Your task to perform on an android device: delete the emails in spam in the gmail app Image 0: 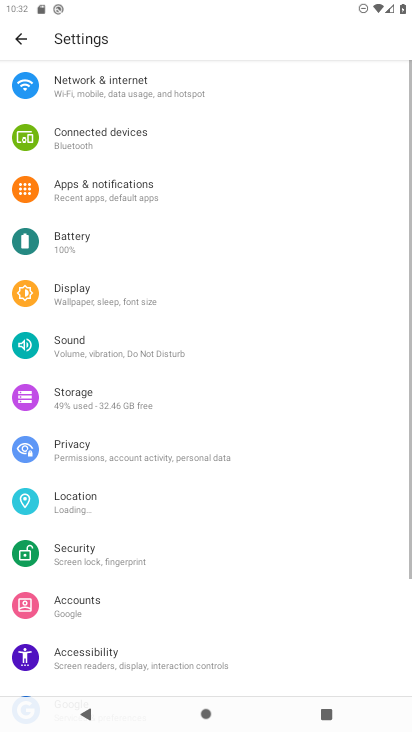
Step 0: press home button
Your task to perform on an android device: delete the emails in spam in the gmail app Image 1: 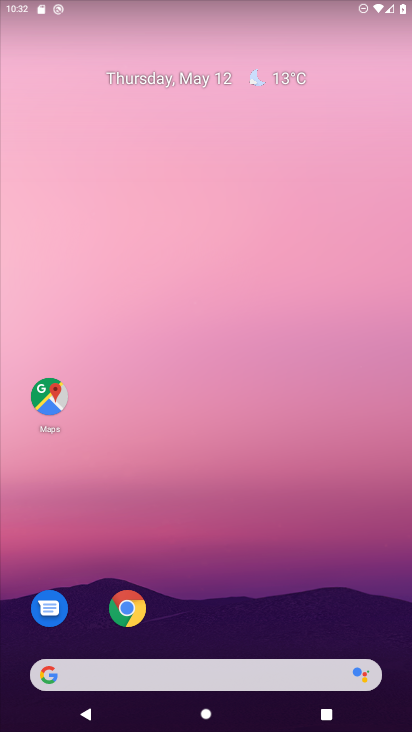
Step 1: drag from (241, 605) to (217, 37)
Your task to perform on an android device: delete the emails in spam in the gmail app Image 2: 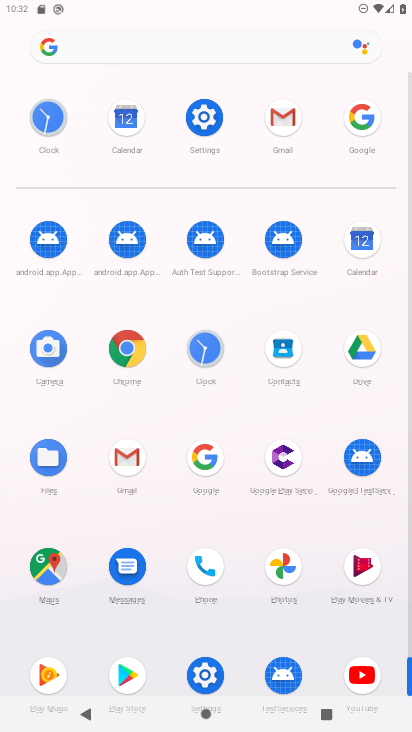
Step 2: click (126, 454)
Your task to perform on an android device: delete the emails in spam in the gmail app Image 3: 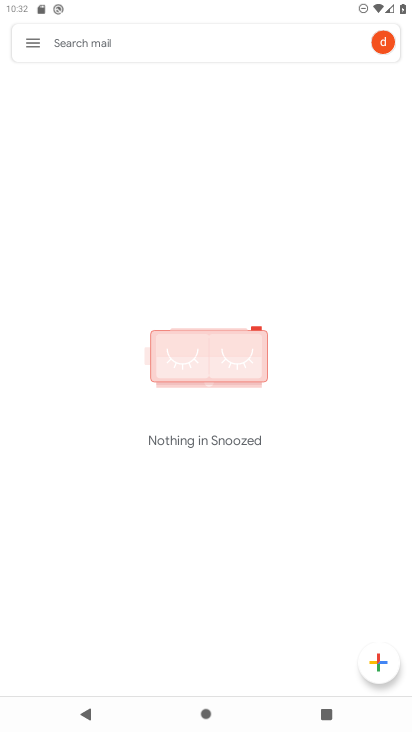
Step 3: click (27, 57)
Your task to perform on an android device: delete the emails in spam in the gmail app Image 4: 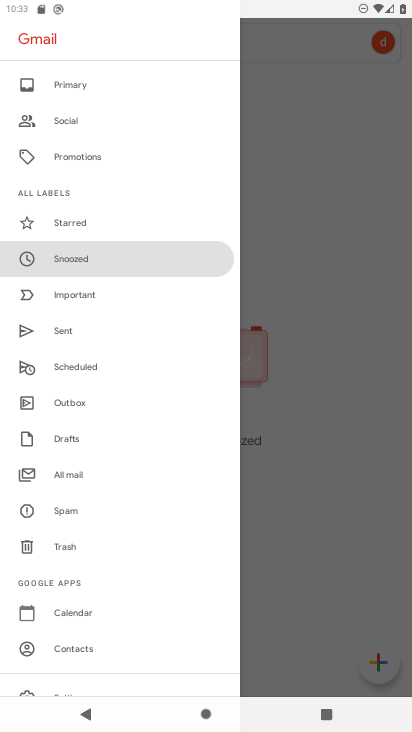
Step 4: click (77, 507)
Your task to perform on an android device: delete the emails in spam in the gmail app Image 5: 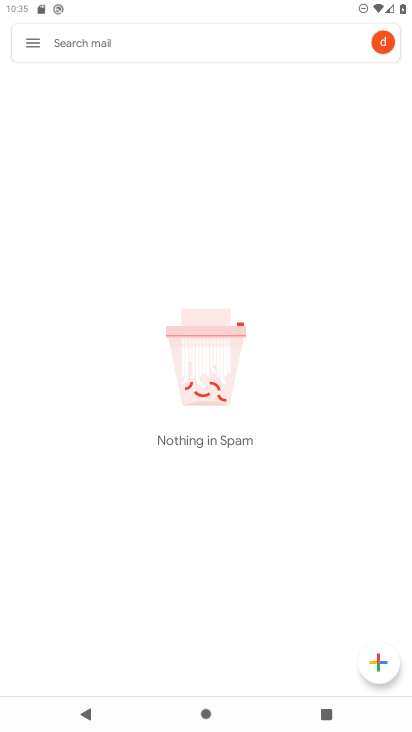
Step 5: task complete